Your task to perform on an android device: open app "PUBG MOBILE" Image 0: 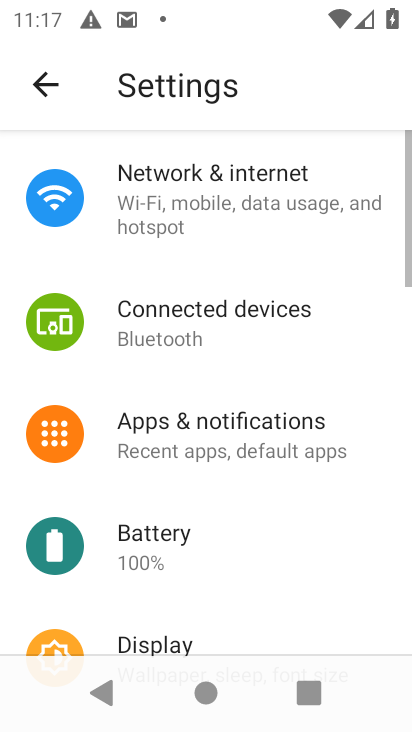
Step 0: press home button
Your task to perform on an android device: open app "PUBG MOBILE" Image 1: 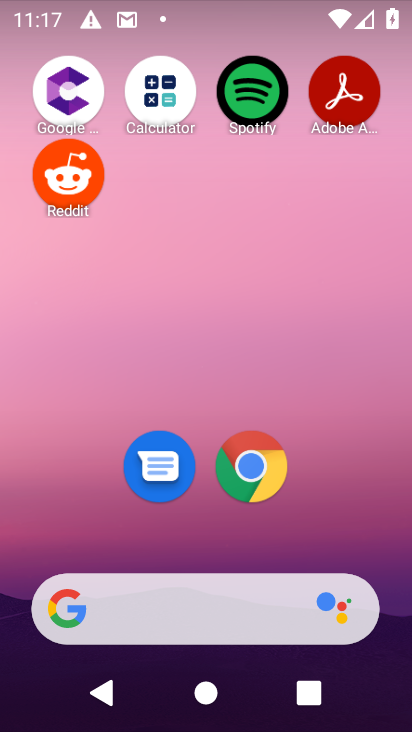
Step 1: drag from (165, 590) to (139, 145)
Your task to perform on an android device: open app "PUBG MOBILE" Image 2: 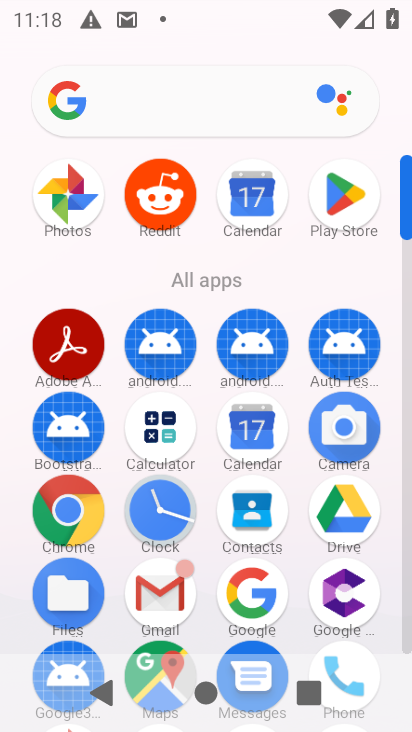
Step 2: click (344, 211)
Your task to perform on an android device: open app "PUBG MOBILE" Image 3: 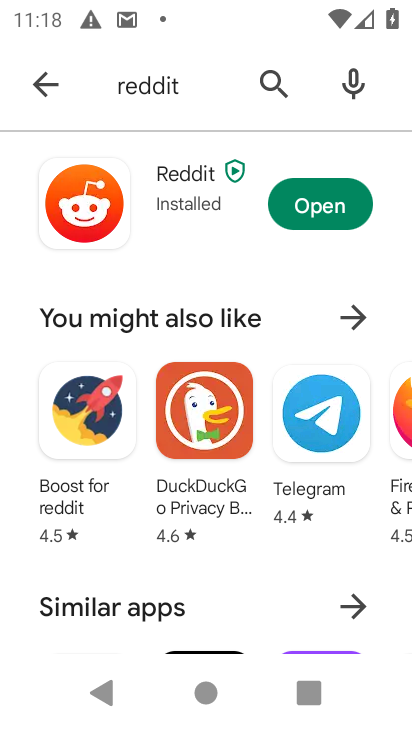
Step 3: click (35, 87)
Your task to perform on an android device: open app "PUBG MOBILE" Image 4: 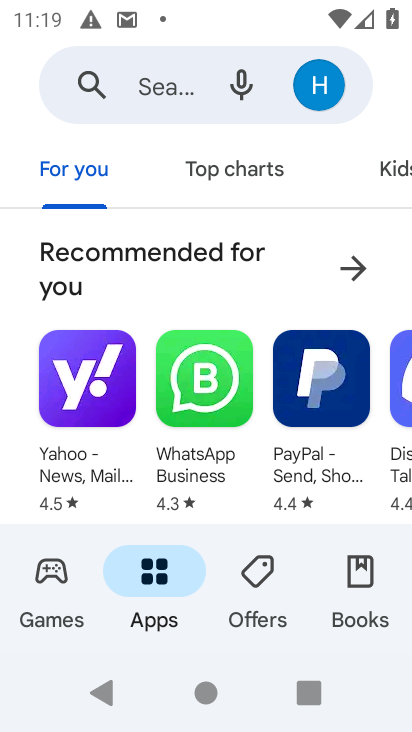
Step 4: click (178, 89)
Your task to perform on an android device: open app "PUBG MOBILE" Image 5: 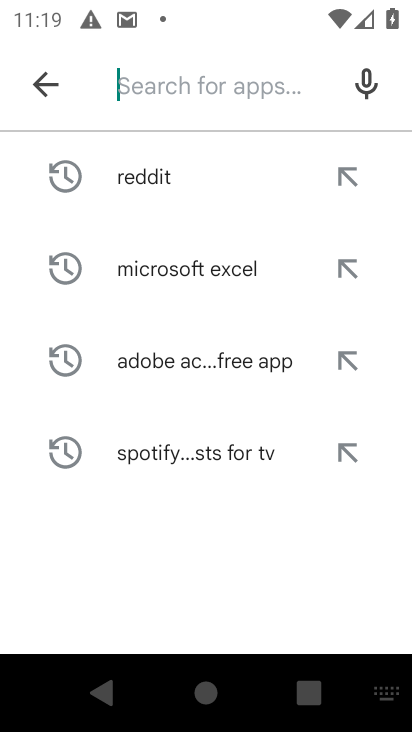
Step 5: type "PUBG MOBILE"
Your task to perform on an android device: open app "PUBG MOBILE" Image 6: 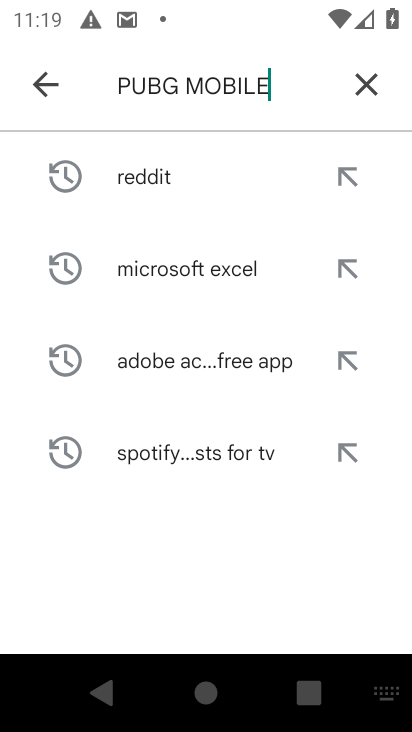
Step 6: type ""
Your task to perform on an android device: open app "PUBG MOBILE" Image 7: 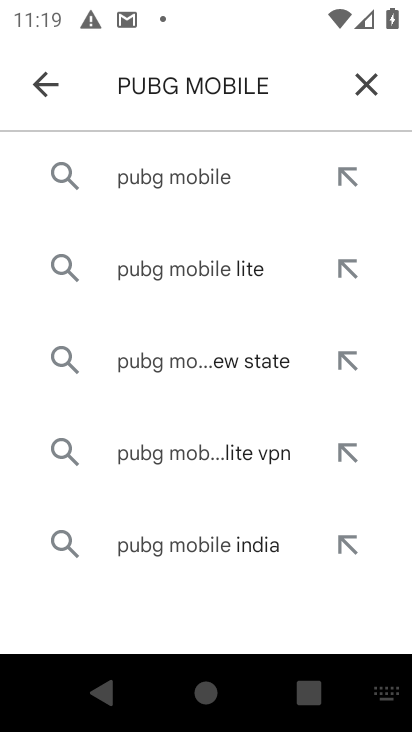
Step 7: click (115, 186)
Your task to perform on an android device: open app "PUBG MOBILE" Image 8: 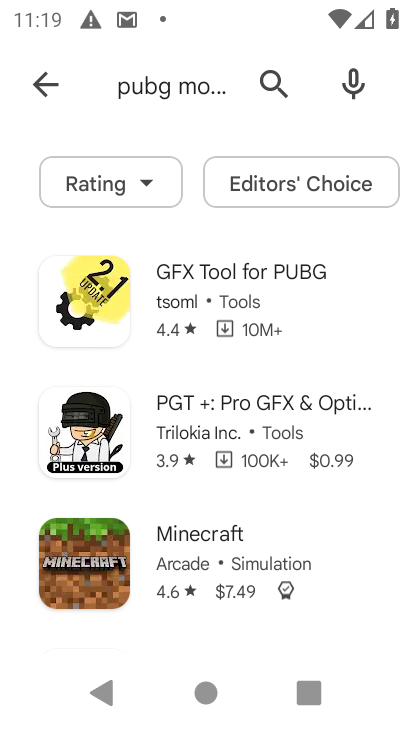
Step 8: task complete